Your task to perform on an android device: turn off sleep mode Image 0: 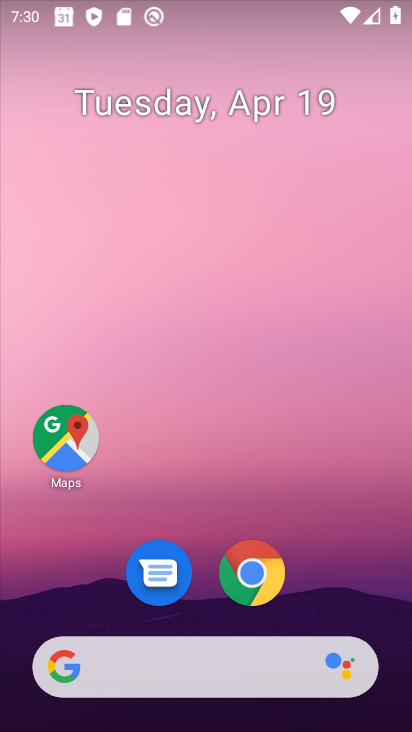
Step 0: drag from (192, 683) to (229, 209)
Your task to perform on an android device: turn off sleep mode Image 1: 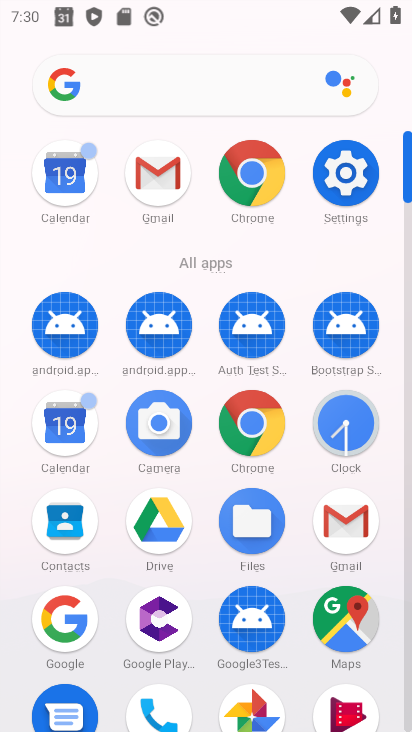
Step 1: click (342, 168)
Your task to perform on an android device: turn off sleep mode Image 2: 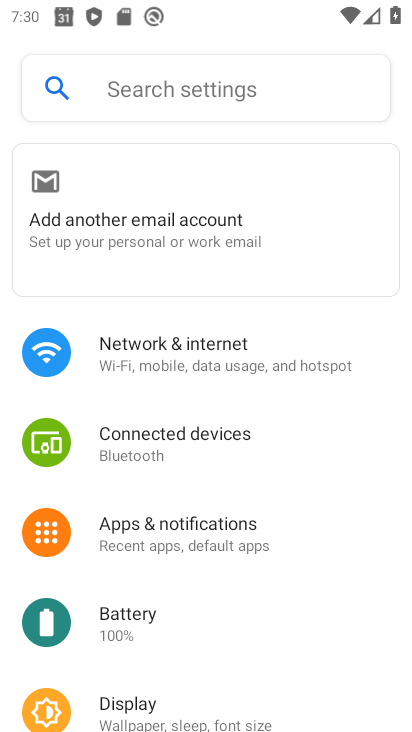
Step 2: click (151, 80)
Your task to perform on an android device: turn off sleep mode Image 3: 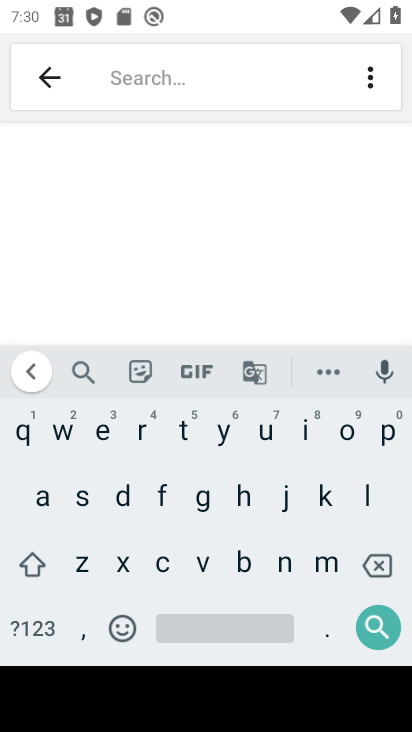
Step 3: click (75, 497)
Your task to perform on an android device: turn off sleep mode Image 4: 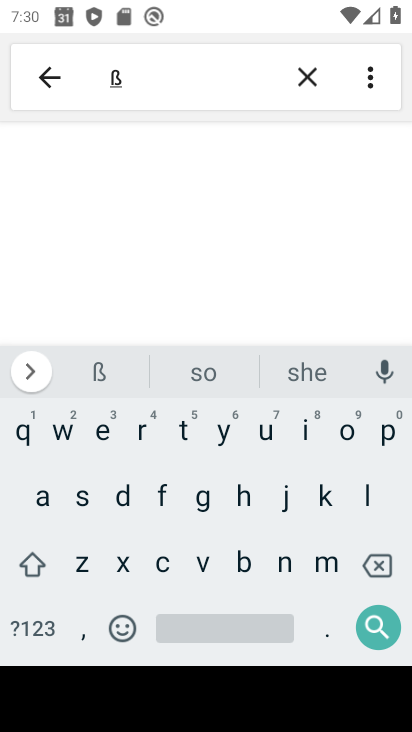
Step 4: click (359, 498)
Your task to perform on an android device: turn off sleep mode Image 5: 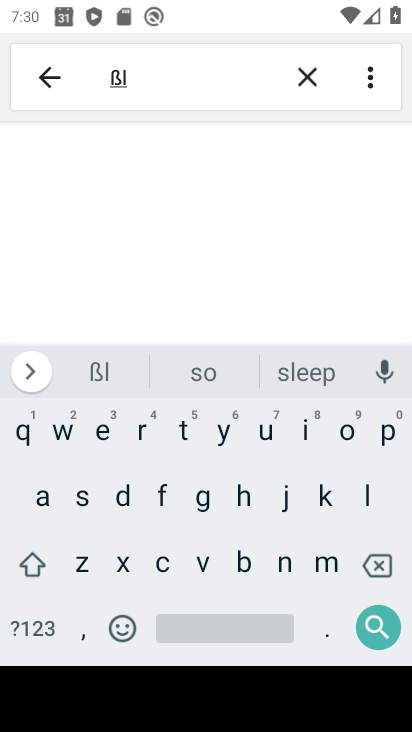
Step 5: click (379, 563)
Your task to perform on an android device: turn off sleep mode Image 6: 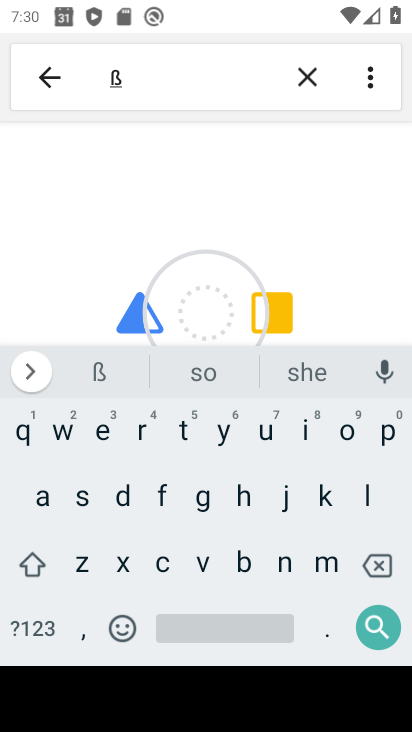
Step 6: click (384, 554)
Your task to perform on an android device: turn off sleep mode Image 7: 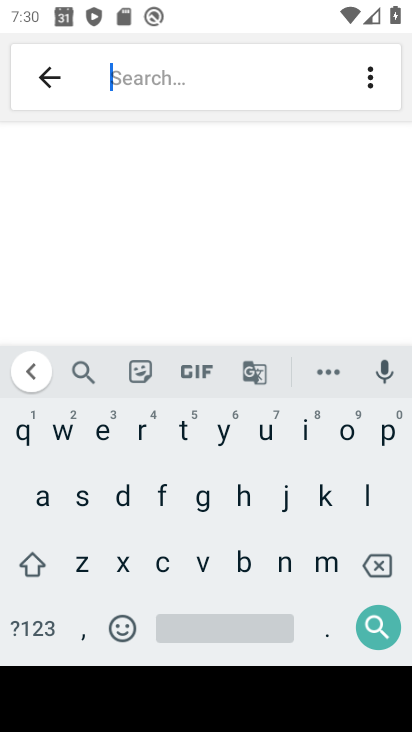
Step 7: click (86, 503)
Your task to perform on an android device: turn off sleep mode Image 8: 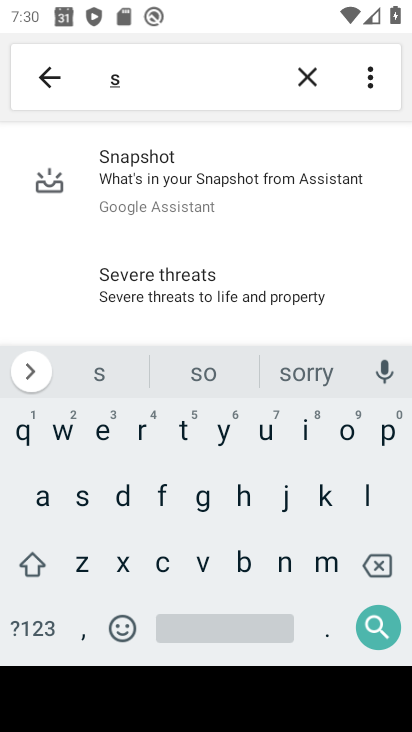
Step 8: click (370, 497)
Your task to perform on an android device: turn off sleep mode Image 9: 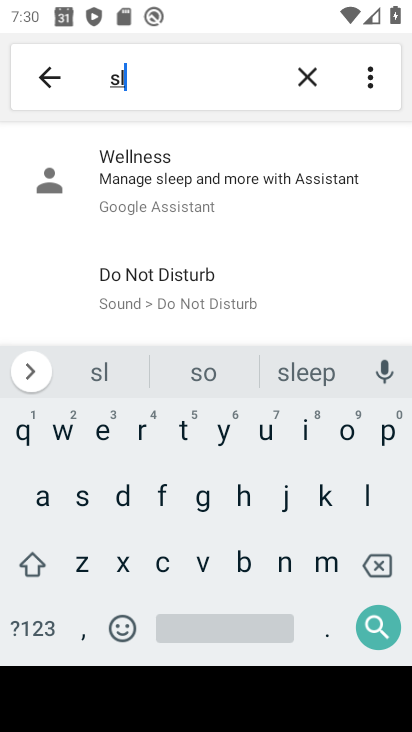
Step 9: click (106, 434)
Your task to perform on an android device: turn off sleep mode Image 10: 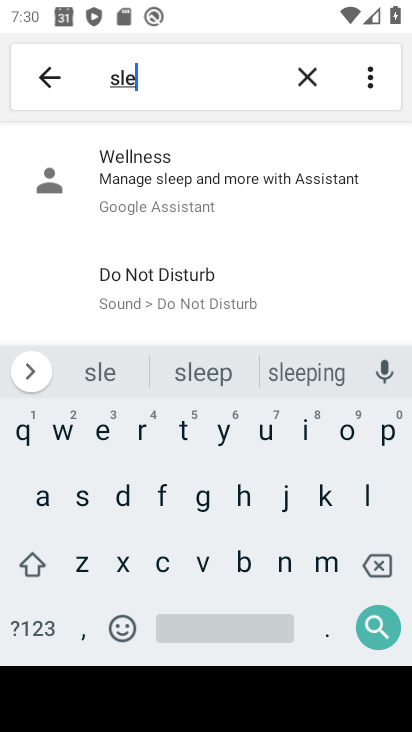
Step 10: click (183, 376)
Your task to perform on an android device: turn off sleep mode Image 11: 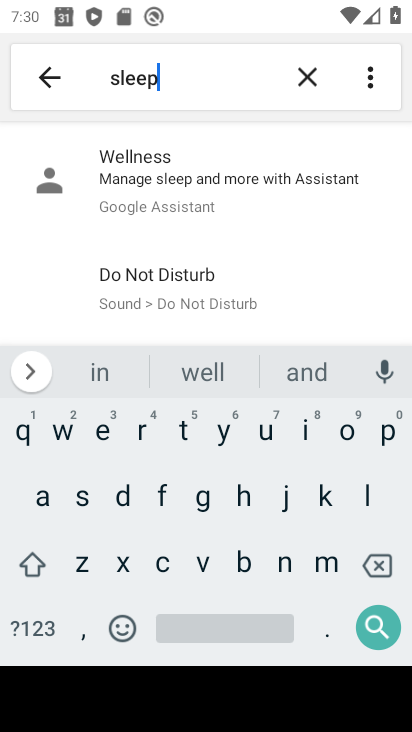
Step 11: click (180, 283)
Your task to perform on an android device: turn off sleep mode Image 12: 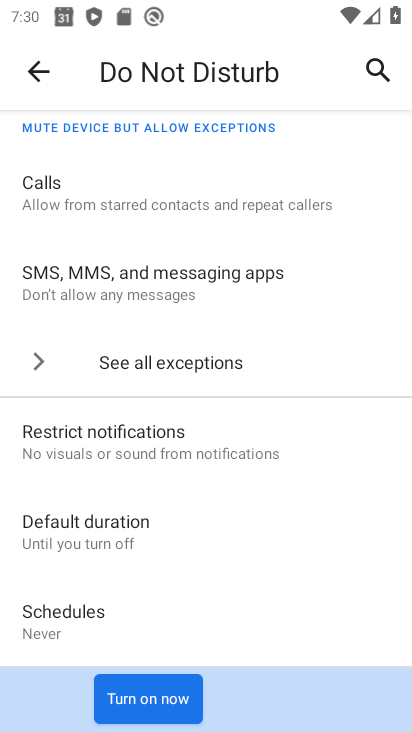
Step 12: click (143, 698)
Your task to perform on an android device: turn off sleep mode Image 13: 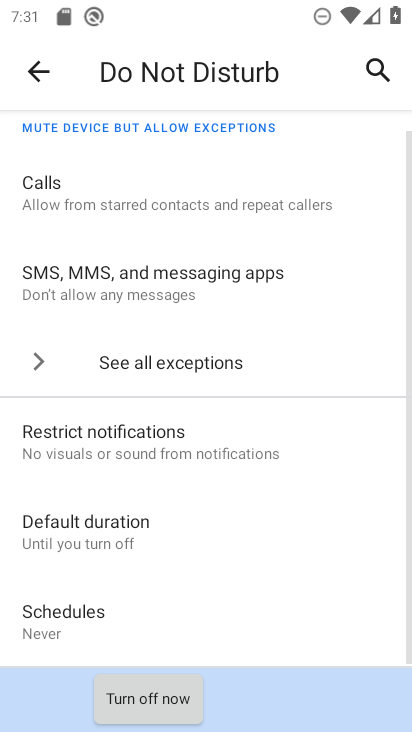
Step 13: click (159, 695)
Your task to perform on an android device: turn off sleep mode Image 14: 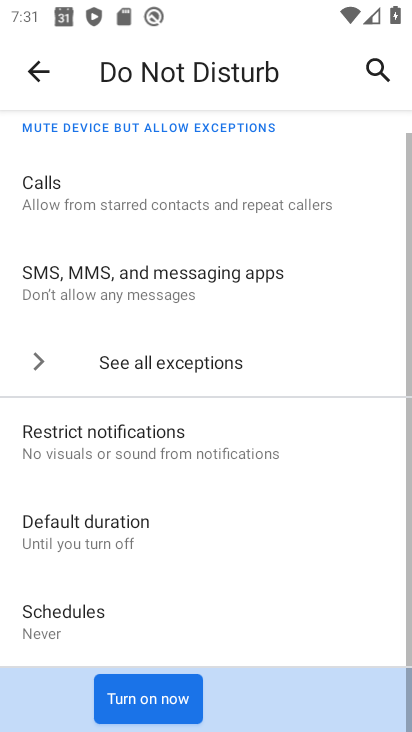
Step 14: task complete